Your task to perform on an android device: toggle notification dots Image 0: 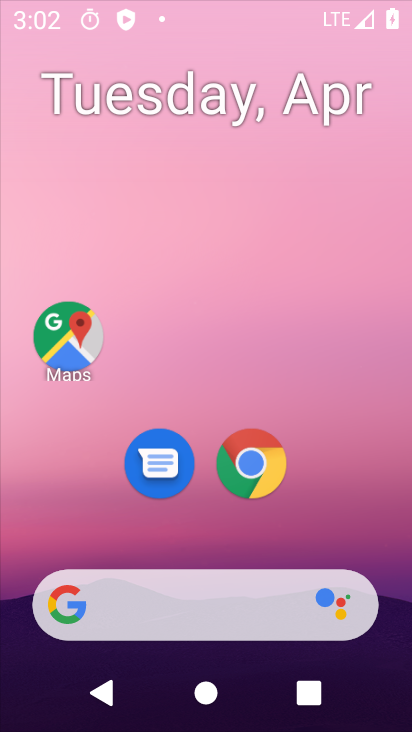
Step 0: click (209, 2)
Your task to perform on an android device: toggle notification dots Image 1: 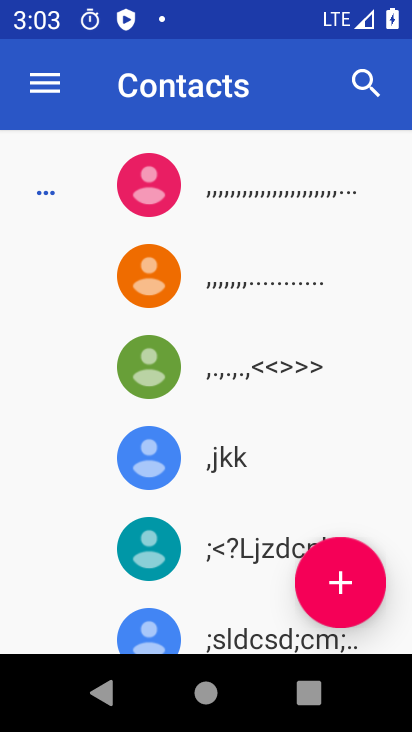
Step 1: press home button
Your task to perform on an android device: toggle notification dots Image 2: 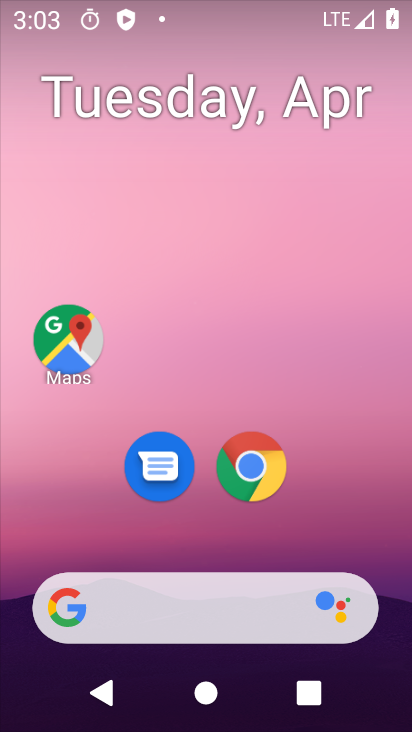
Step 2: drag from (185, 551) to (188, 5)
Your task to perform on an android device: toggle notification dots Image 3: 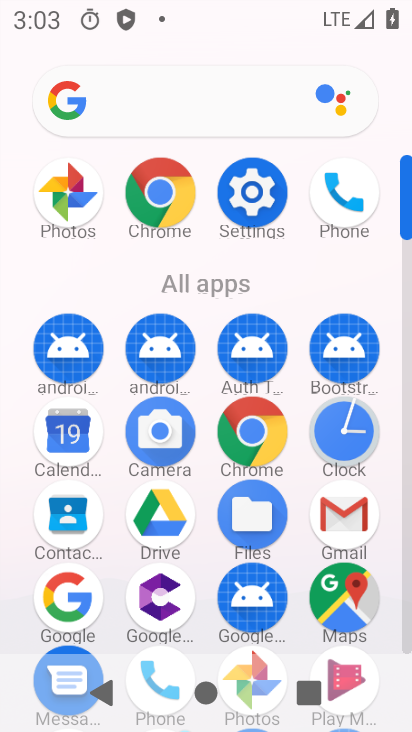
Step 3: click (257, 193)
Your task to perform on an android device: toggle notification dots Image 4: 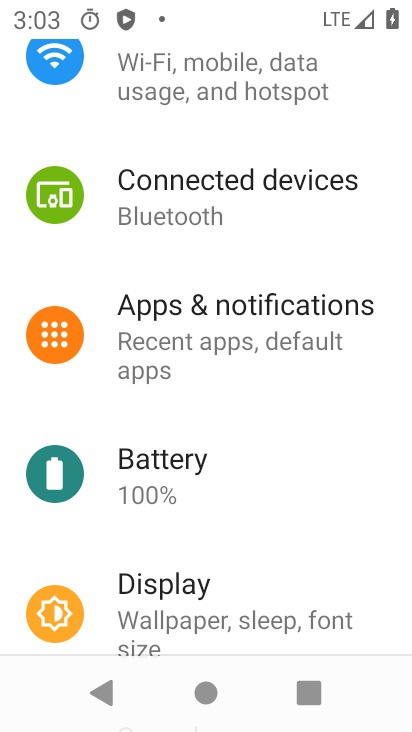
Step 4: click (167, 344)
Your task to perform on an android device: toggle notification dots Image 5: 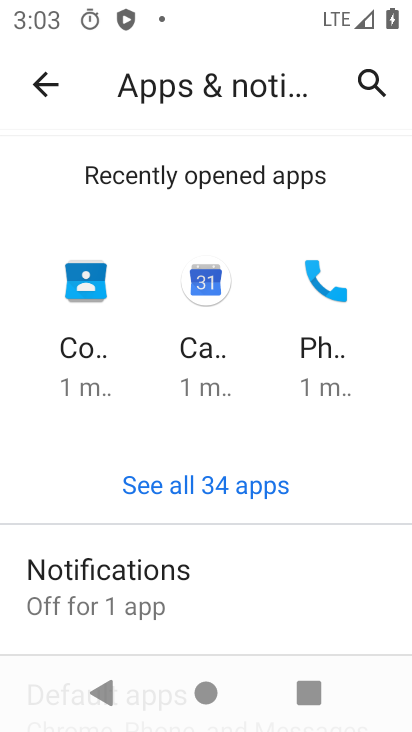
Step 5: click (171, 572)
Your task to perform on an android device: toggle notification dots Image 6: 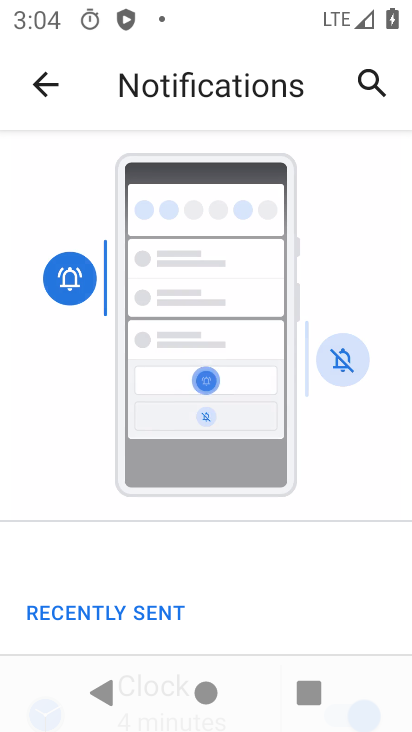
Step 6: drag from (210, 525) to (180, 43)
Your task to perform on an android device: toggle notification dots Image 7: 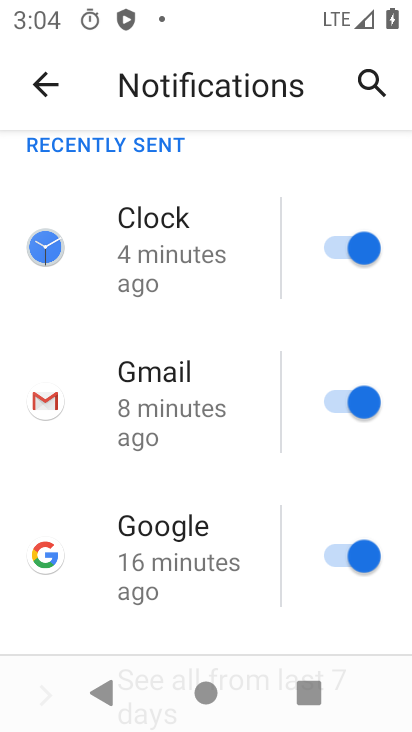
Step 7: drag from (228, 561) to (203, 208)
Your task to perform on an android device: toggle notification dots Image 8: 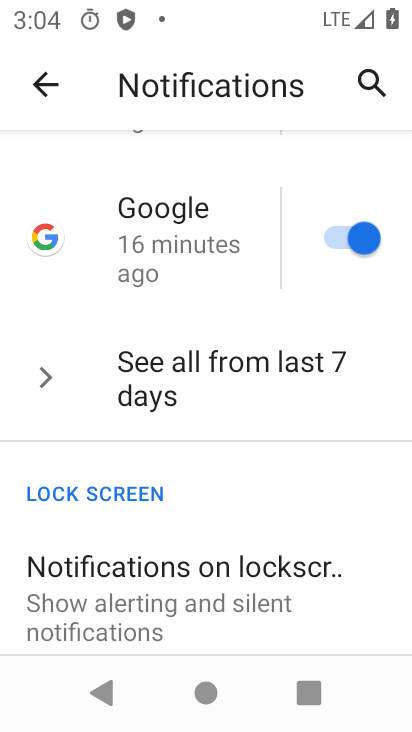
Step 8: drag from (206, 519) to (187, 48)
Your task to perform on an android device: toggle notification dots Image 9: 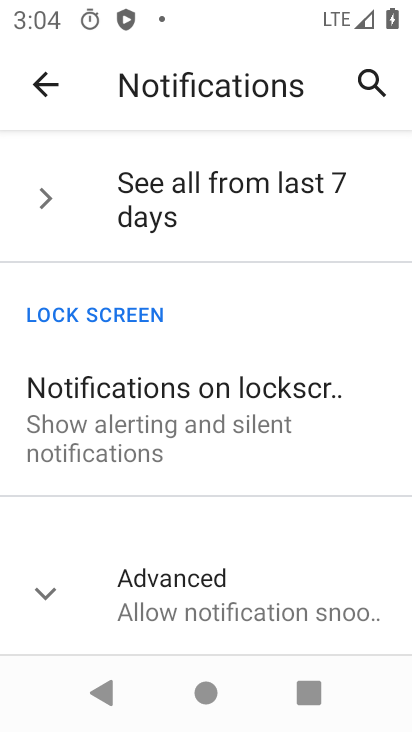
Step 9: click (206, 589)
Your task to perform on an android device: toggle notification dots Image 10: 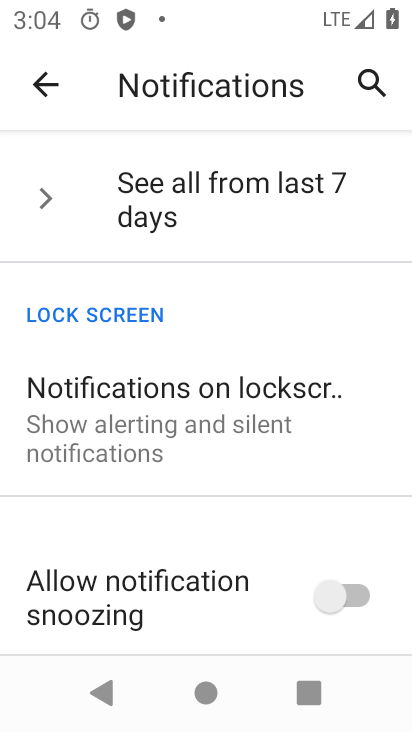
Step 10: drag from (185, 590) to (163, 280)
Your task to perform on an android device: toggle notification dots Image 11: 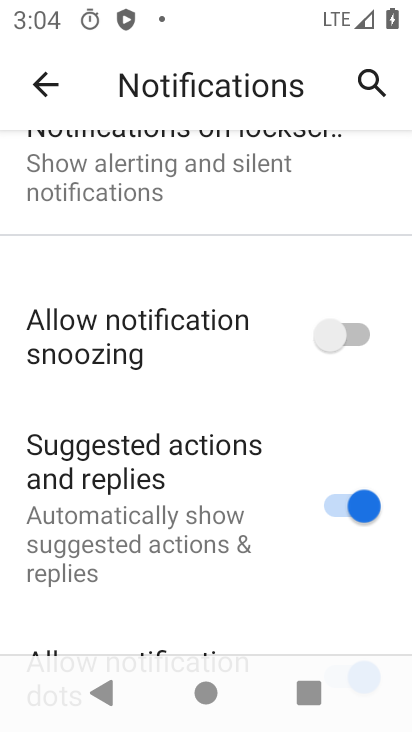
Step 11: drag from (230, 573) to (212, 430)
Your task to perform on an android device: toggle notification dots Image 12: 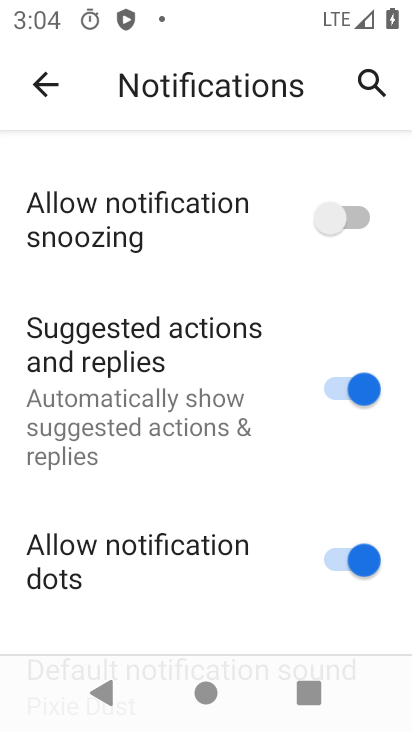
Step 12: click (323, 555)
Your task to perform on an android device: toggle notification dots Image 13: 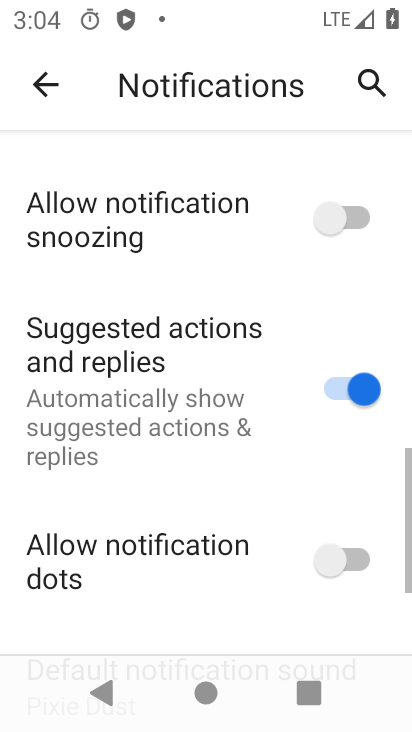
Step 13: task complete